Your task to perform on an android device: delete location history Image 0: 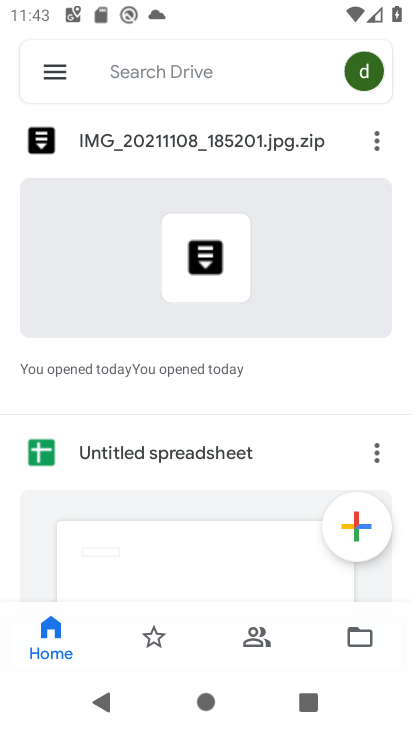
Step 0: press home button
Your task to perform on an android device: delete location history Image 1: 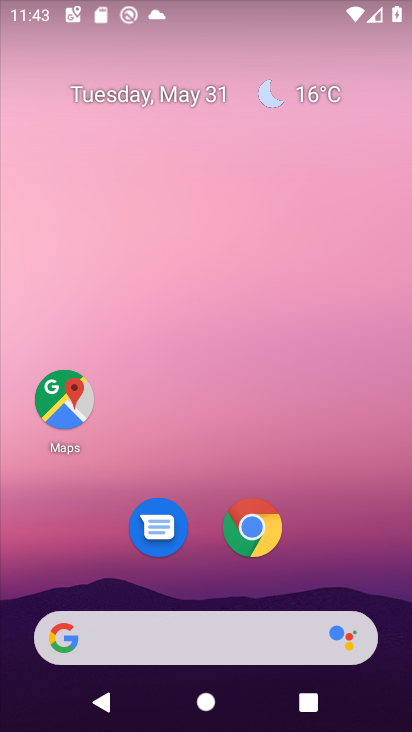
Step 1: click (70, 395)
Your task to perform on an android device: delete location history Image 2: 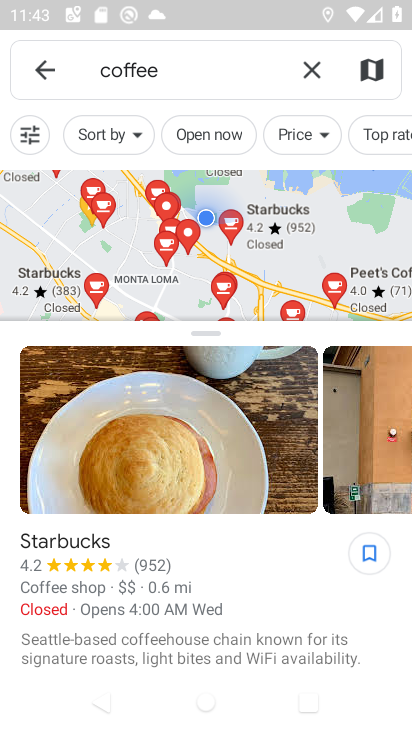
Step 2: click (308, 78)
Your task to perform on an android device: delete location history Image 3: 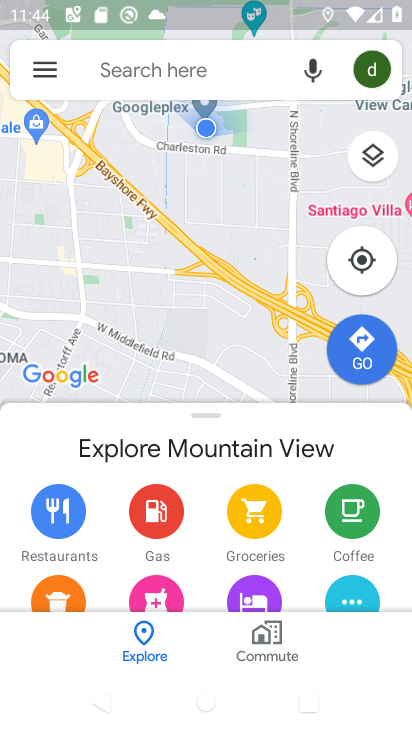
Step 3: click (45, 70)
Your task to perform on an android device: delete location history Image 4: 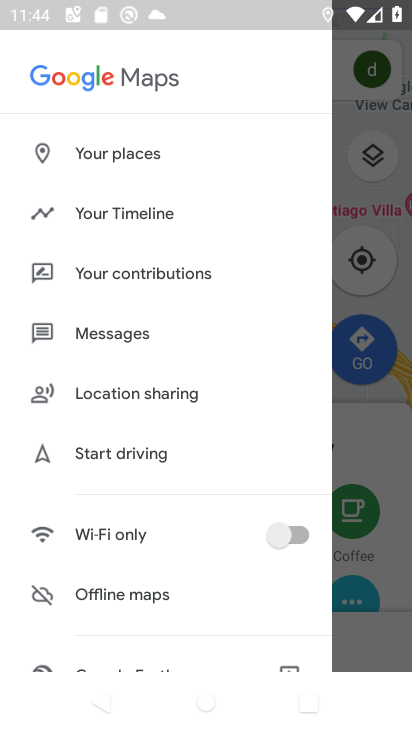
Step 4: click (117, 223)
Your task to perform on an android device: delete location history Image 5: 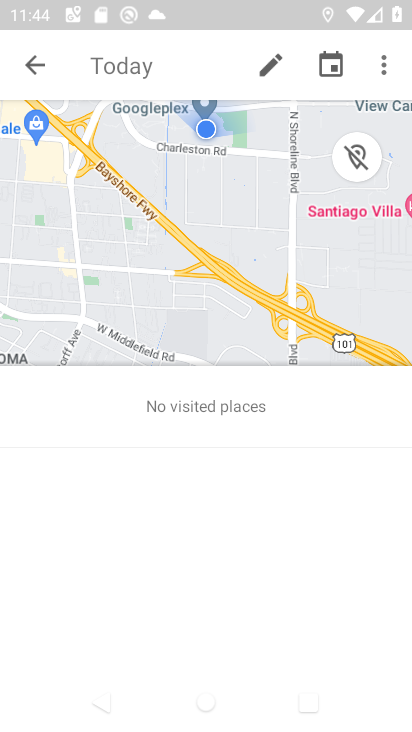
Step 5: click (382, 71)
Your task to perform on an android device: delete location history Image 6: 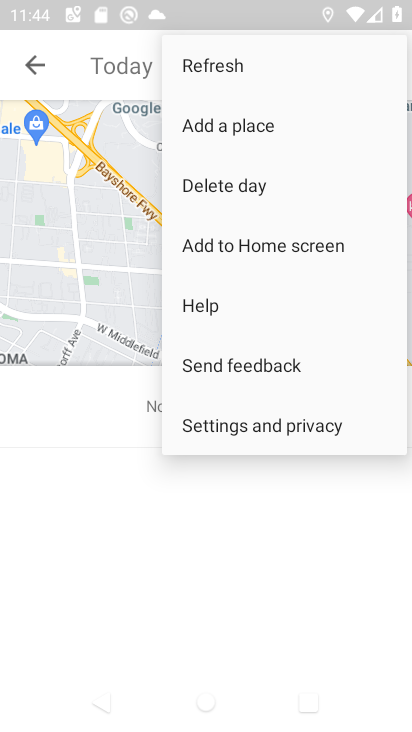
Step 6: click (241, 433)
Your task to perform on an android device: delete location history Image 7: 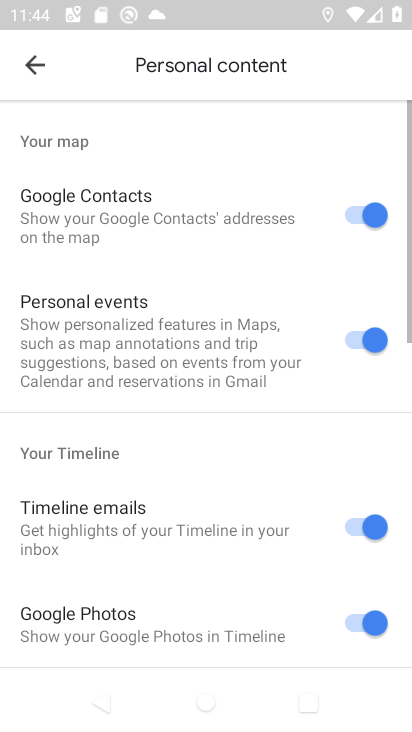
Step 7: drag from (136, 564) to (129, 70)
Your task to perform on an android device: delete location history Image 8: 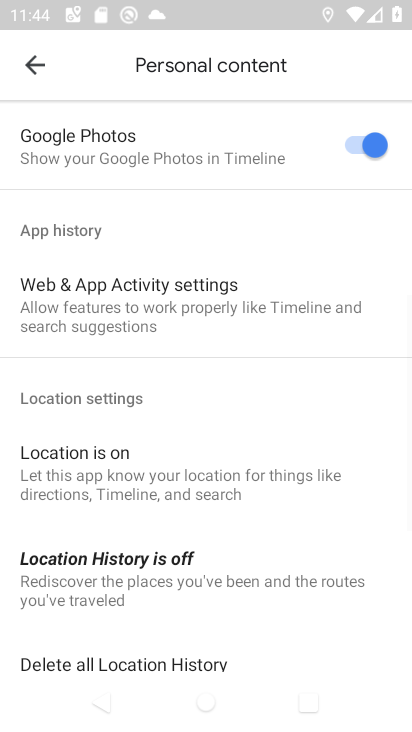
Step 8: drag from (125, 462) to (125, 107)
Your task to perform on an android device: delete location history Image 9: 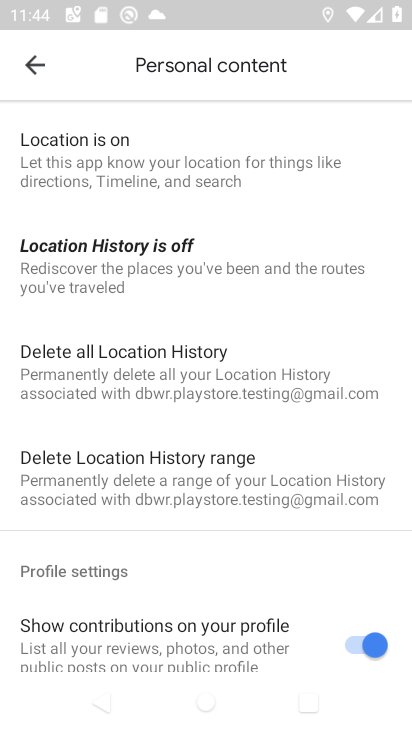
Step 9: click (97, 372)
Your task to perform on an android device: delete location history Image 10: 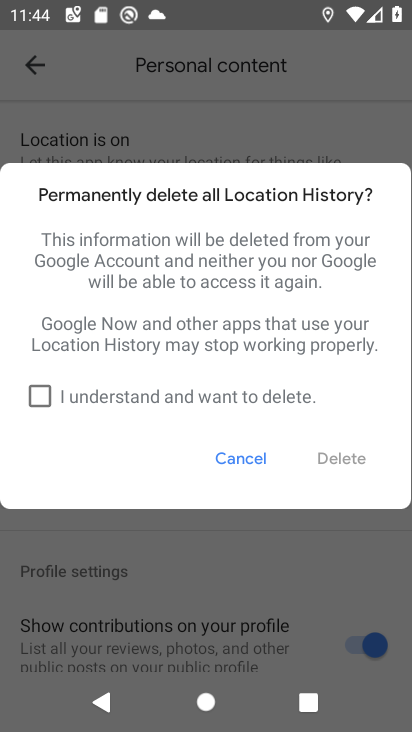
Step 10: click (39, 397)
Your task to perform on an android device: delete location history Image 11: 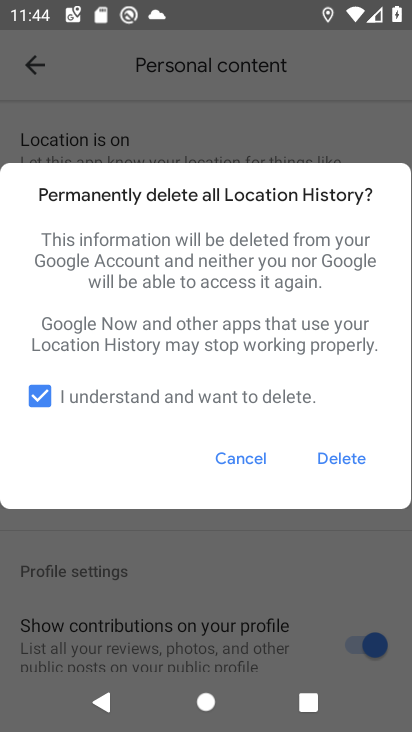
Step 11: click (334, 465)
Your task to perform on an android device: delete location history Image 12: 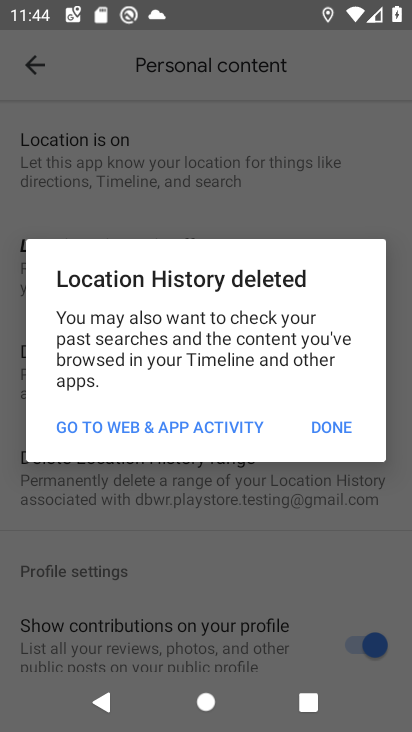
Step 12: click (346, 427)
Your task to perform on an android device: delete location history Image 13: 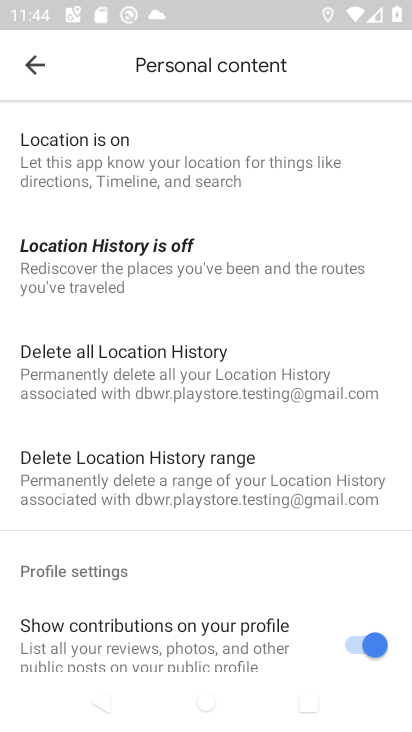
Step 13: task complete